Your task to perform on an android device: change alarm snooze length Image 0: 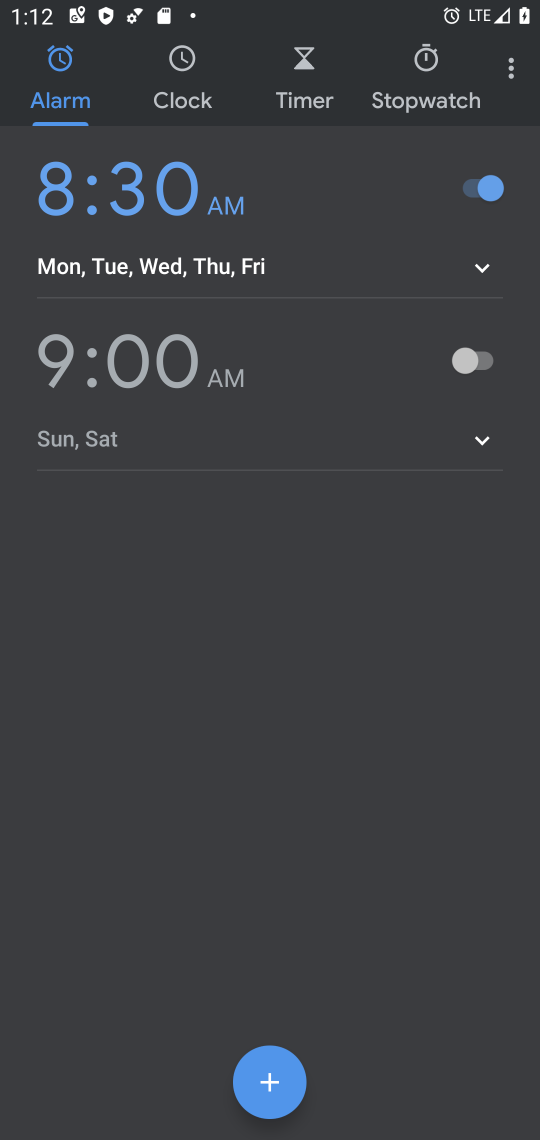
Step 0: press home button
Your task to perform on an android device: change alarm snooze length Image 1: 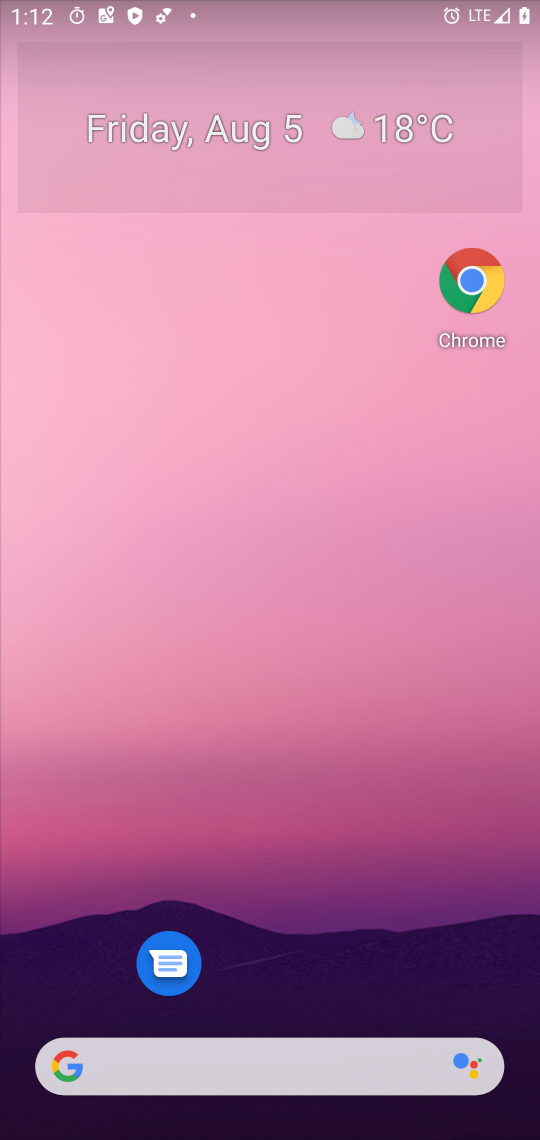
Step 1: drag from (332, 785) to (333, 0)
Your task to perform on an android device: change alarm snooze length Image 2: 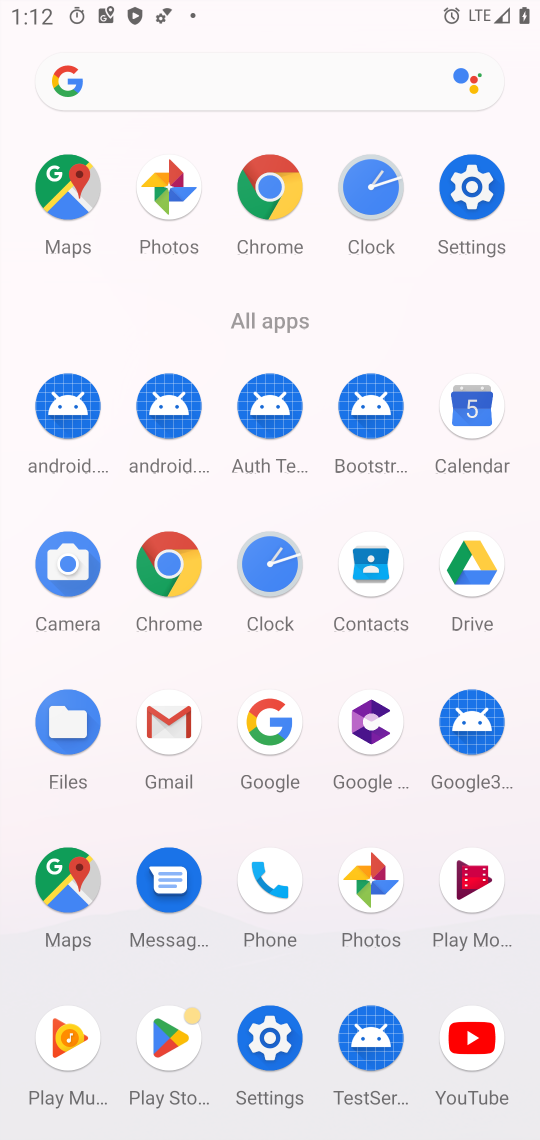
Step 2: click (383, 190)
Your task to perform on an android device: change alarm snooze length Image 3: 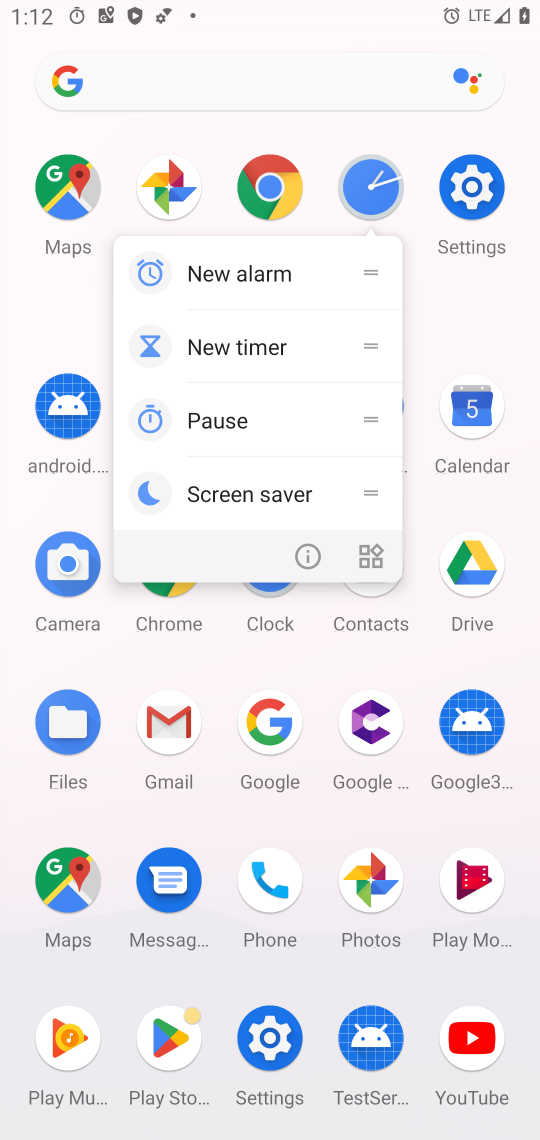
Step 3: click (386, 184)
Your task to perform on an android device: change alarm snooze length Image 4: 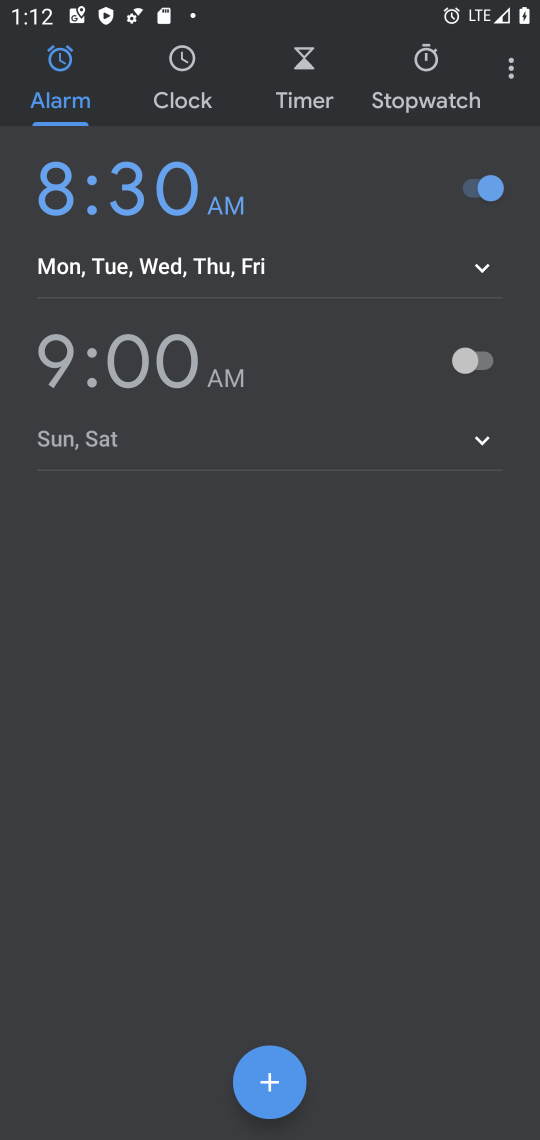
Step 4: click (507, 80)
Your task to perform on an android device: change alarm snooze length Image 5: 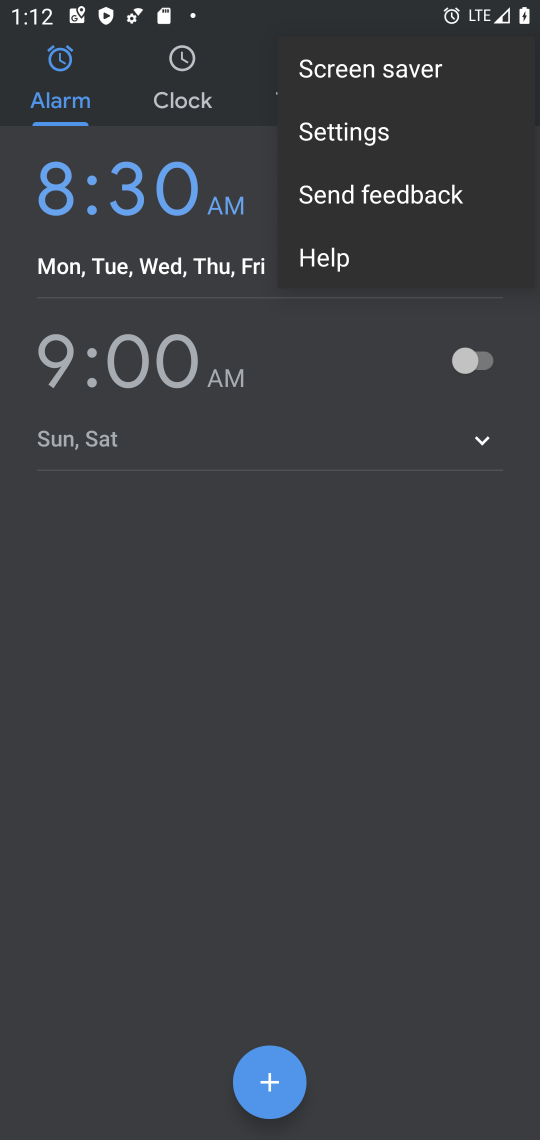
Step 5: click (371, 131)
Your task to perform on an android device: change alarm snooze length Image 6: 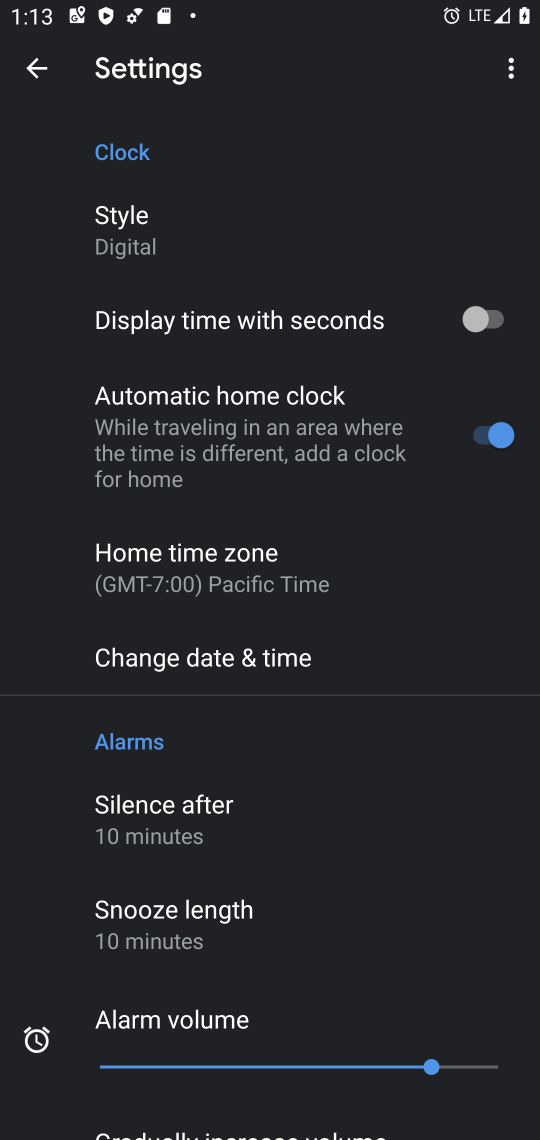
Step 6: click (218, 931)
Your task to perform on an android device: change alarm snooze length Image 7: 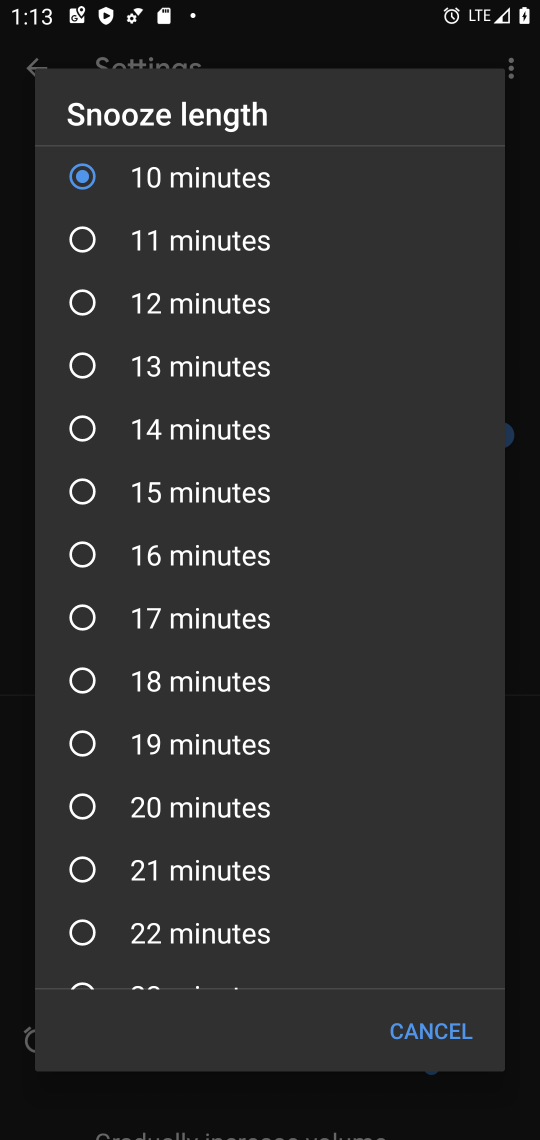
Step 7: click (85, 614)
Your task to perform on an android device: change alarm snooze length Image 8: 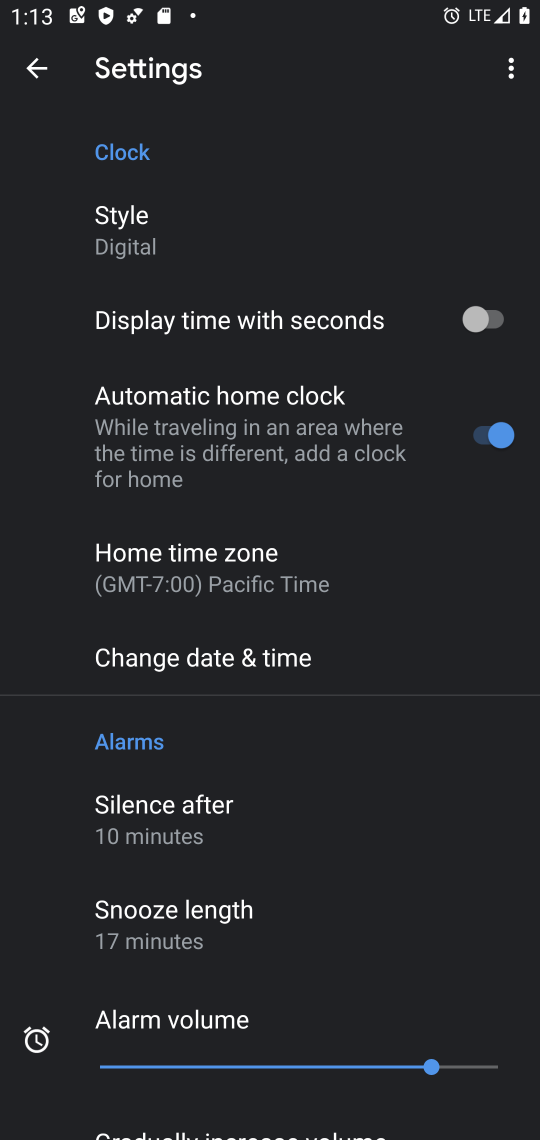
Step 8: task complete